Your task to perform on an android device: snooze an email in the gmail app Image 0: 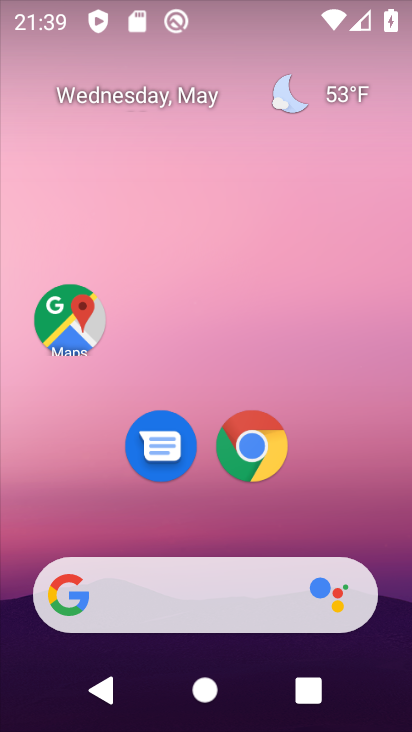
Step 0: drag from (366, 499) to (343, 167)
Your task to perform on an android device: snooze an email in the gmail app Image 1: 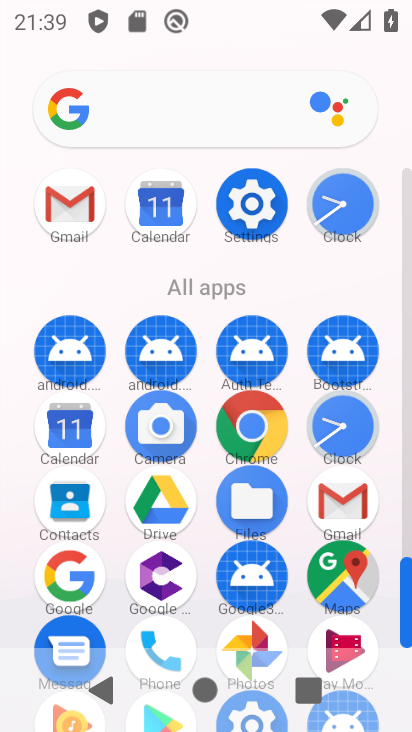
Step 1: click (350, 493)
Your task to perform on an android device: snooze an email in the gmail app Image 2: 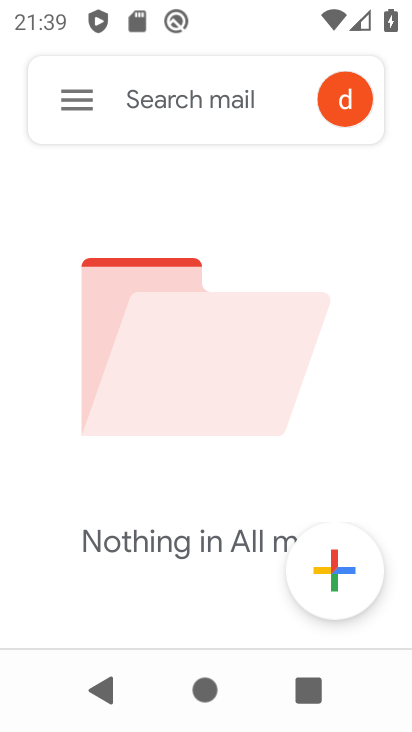
Step 2: click (67, 105)
Your task to perform on an android device: snooze an email in the gmail app Image 3: 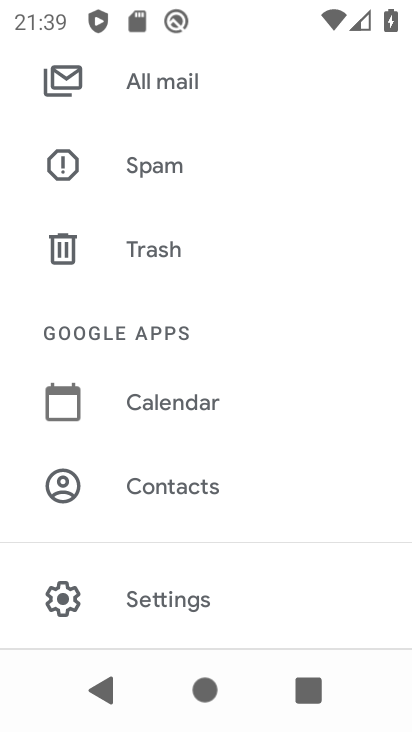
Step 3: click (172, 87)
Your task to perform on an android device: snooze an email in the gmail app Image 4: 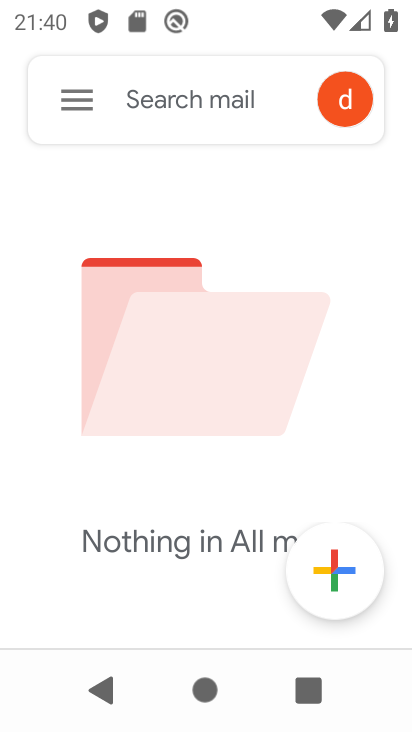
Step 4: task complete